Your task to perform on an android device: allow cookies in the chrome app Image 0: 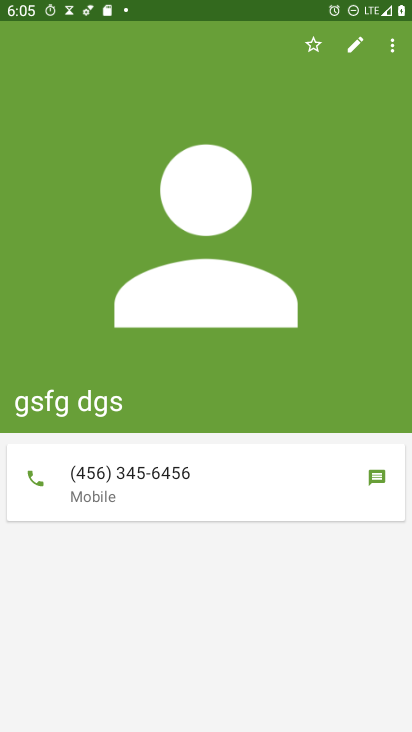
Step 0: press home button
Your task to perform on an android device: allow cookies in the chrome app Image 1: 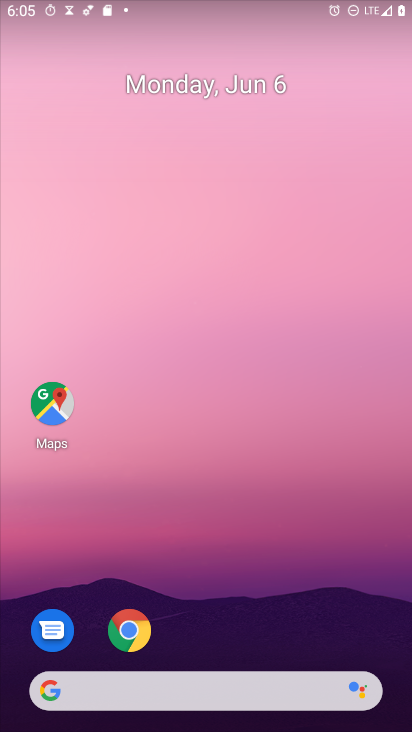
Step 1: drag from (308, 600) to (143, 717)
Your task to perform on an android device: allow cookies in the chrome app Image 2: 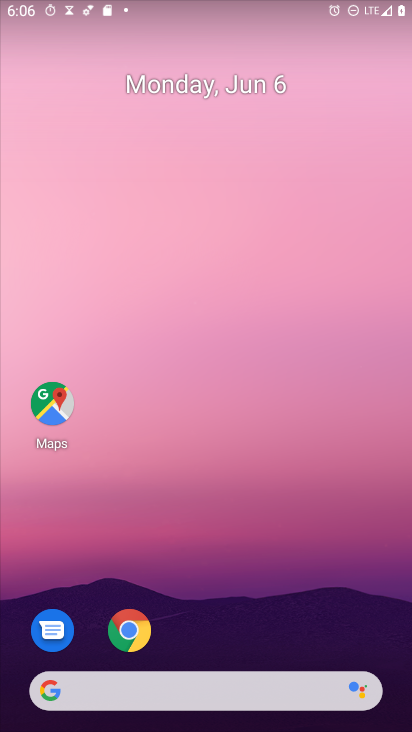
Step 2: click (142, 622)
Your task to perform on an android device: allow cookies in the chrome app Image 3: 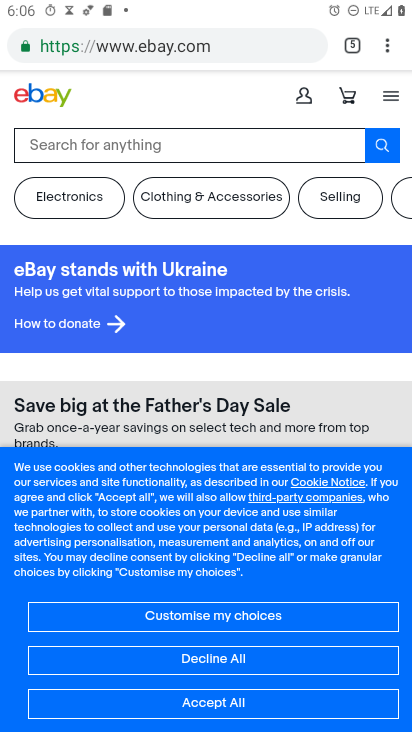
Step 3: click (385, 50)
Your task to perform on an android device: allow cookies in the chrome app Image 4: 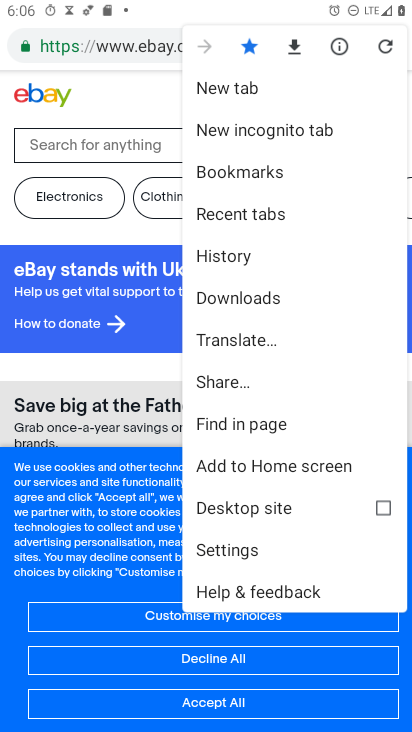
Step 4: click (229, 553)
Your task to perform on an android device: allow cookies in the chrome app Image 5: 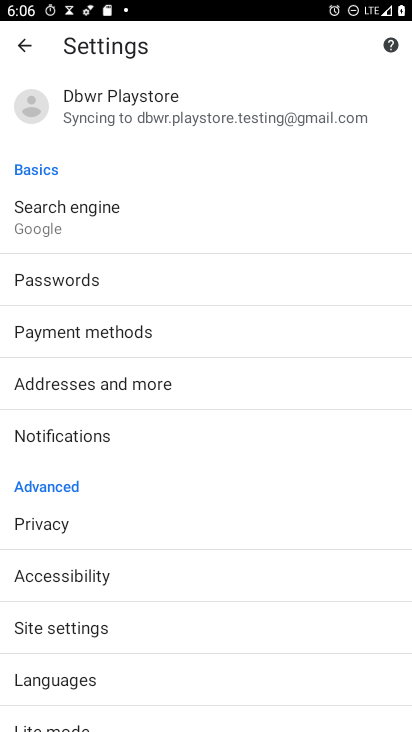
Step 5: click (88, 636)
Your task to perform on an android device: allow cookies in the chrome app Image 6: 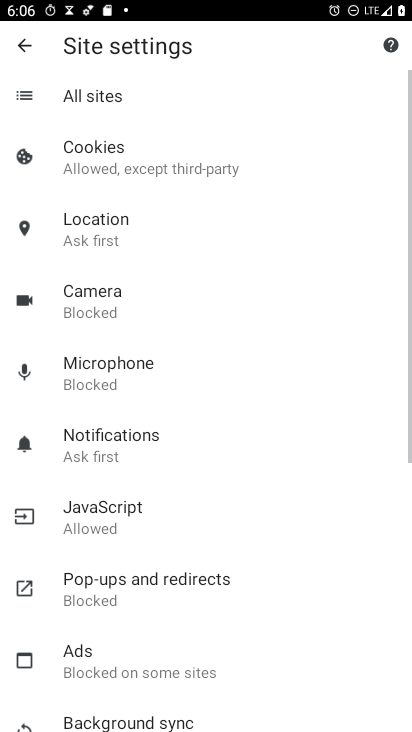
Step 6: click (159, 170)
Your task to perform on an android device: allow cookies in the chrome app Image 7: 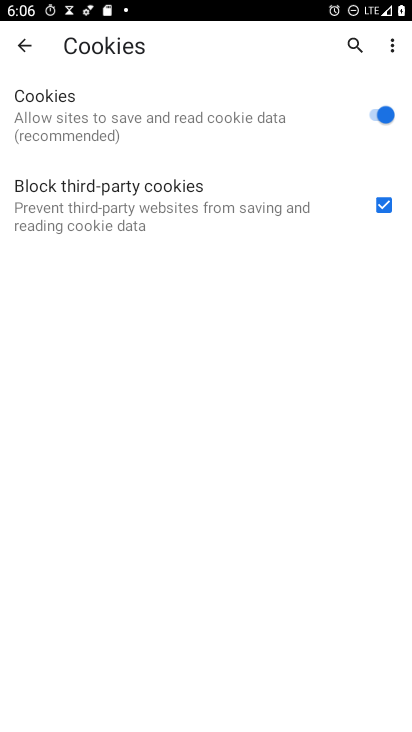
Step 7: task complete